Your task to perform on an android device: Open Wikipedia Image 0: 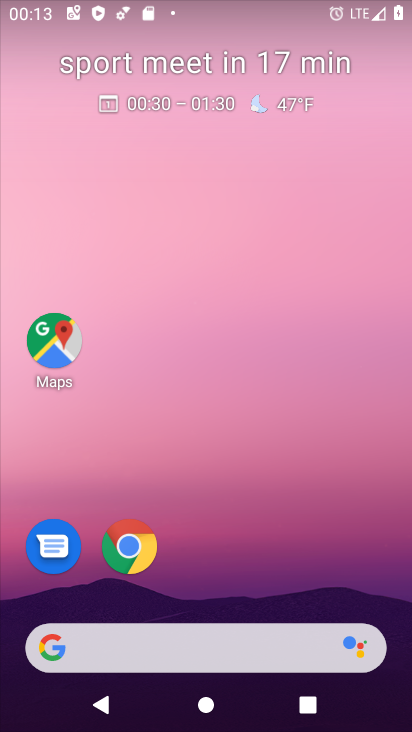
Step 0: click (125, 559)
Your task to perform on an android device: Open Wikipedia Image 1: 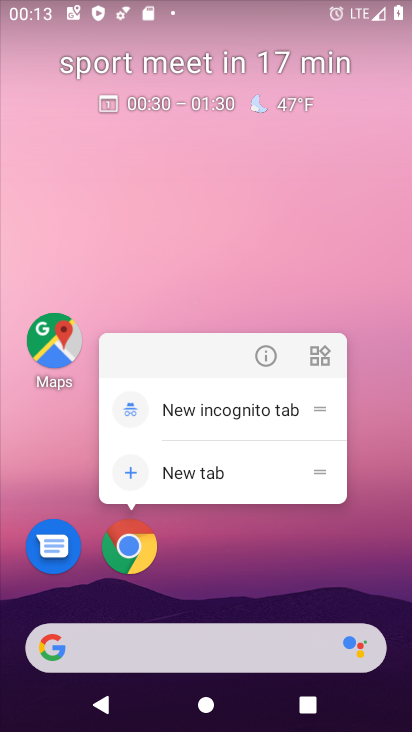
Step 1: click (206, 550)
Your task to perform on an android device: Open Wikipedia Image 2: 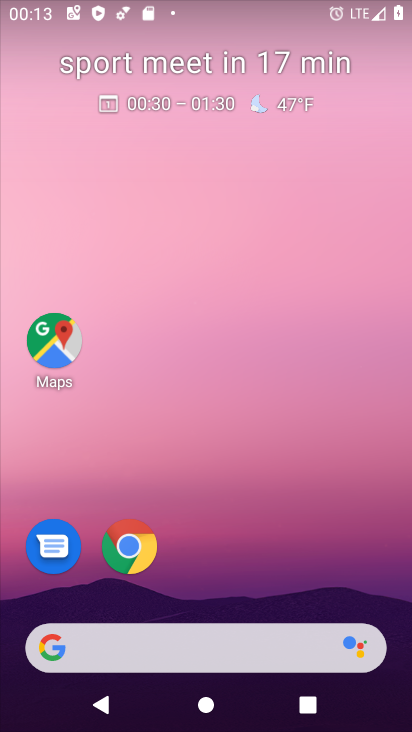
Step 2: click (109, 556)
Your task to perform on an android device: Open Wikipedia Image 3: 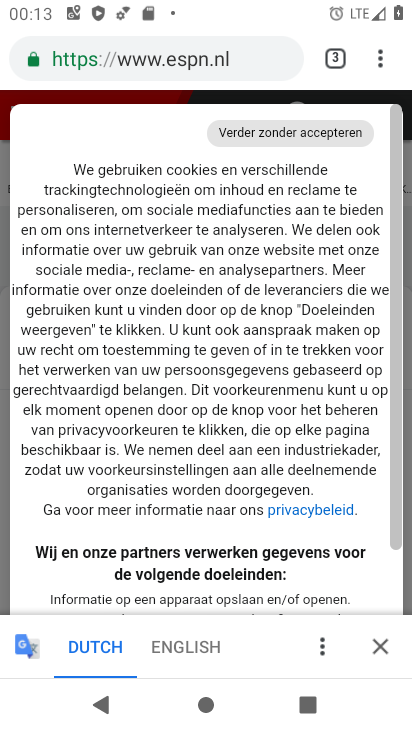
Step 3: click (384, 56)
Your task to perform on an android device: Open Wikipedia Image 4: 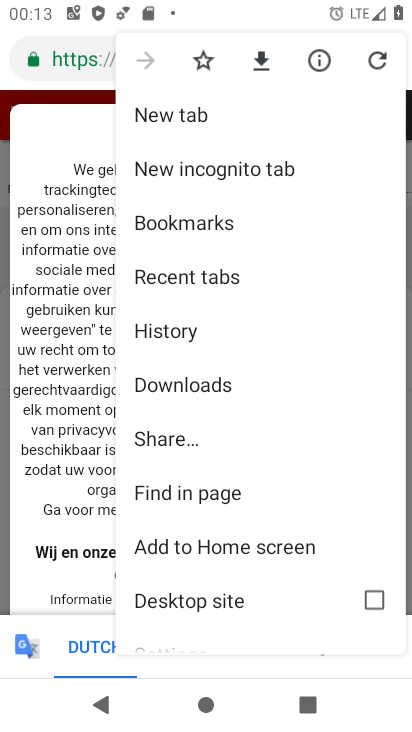
Step 4: click (91, 66)
Your task to perform on an android device: Open Wikipedia Image 5: 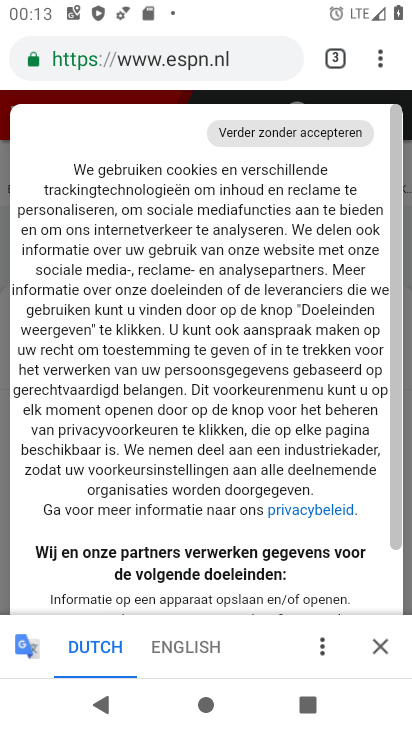
Step 5: click (271, 49)
Your task to perform on an android device: Open Wikipedia Image 6: 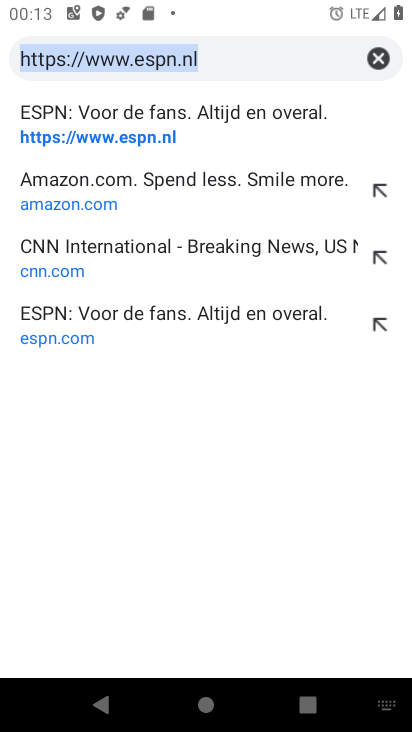
Step 6: click (386, 50)
Your task to perform on an android device: Open Wikipedia Image 7: 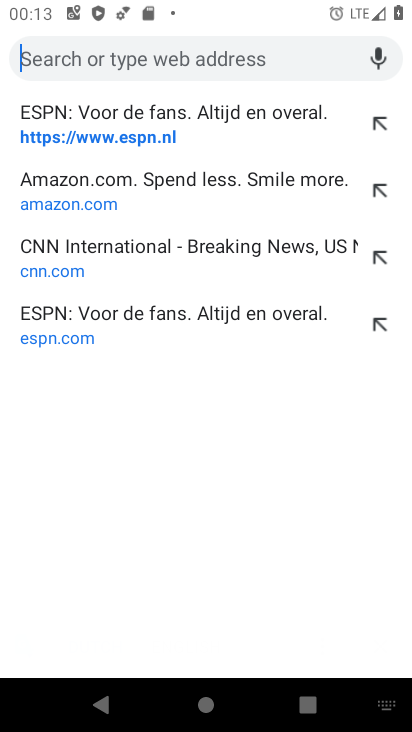
Step 7: click (164, 61)
Your task to perform on an android device: Open Wikipedia Image 8: 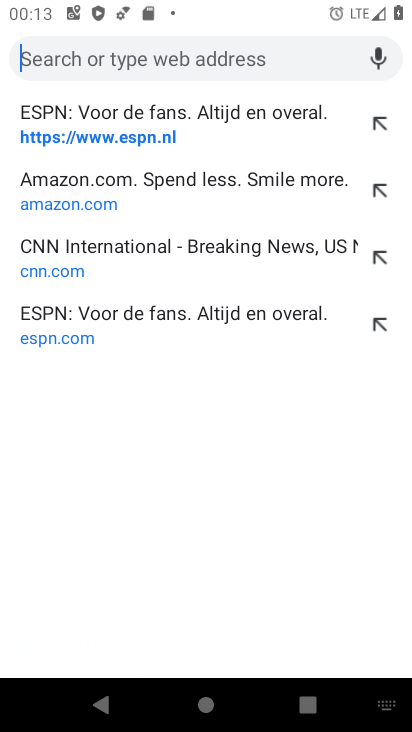
Step 8: type "wikipedia"
Your task to perform on an android device: Open Wikipedia Image 9: 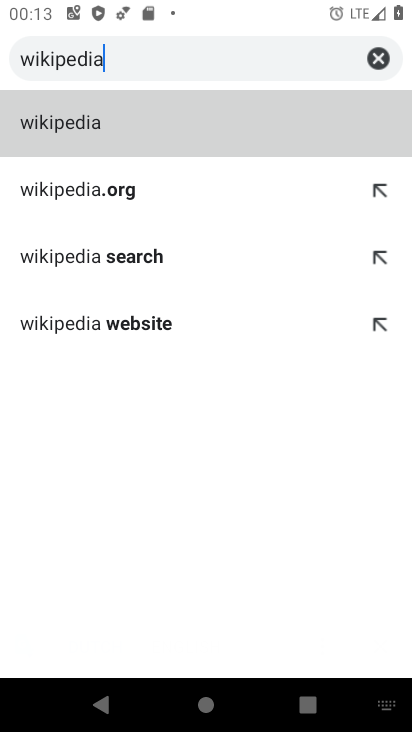
Step 9: click (84, 118)
Your task to perform on an android device: Open Wikipedia Image 10: 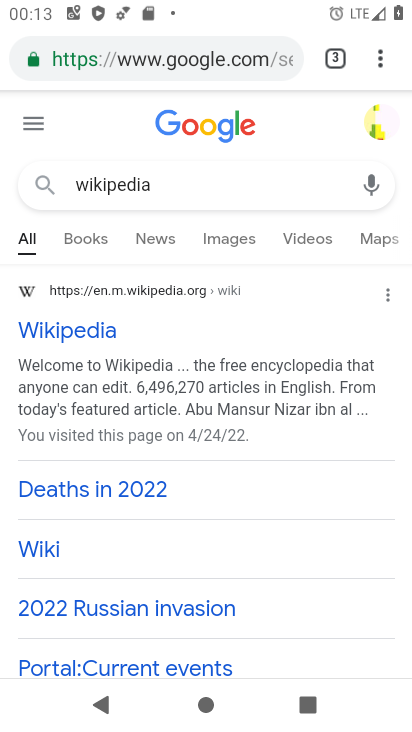
Step 10: click (89, 343)
Your task to perform on an android device: Open Wikipedia Image 11: 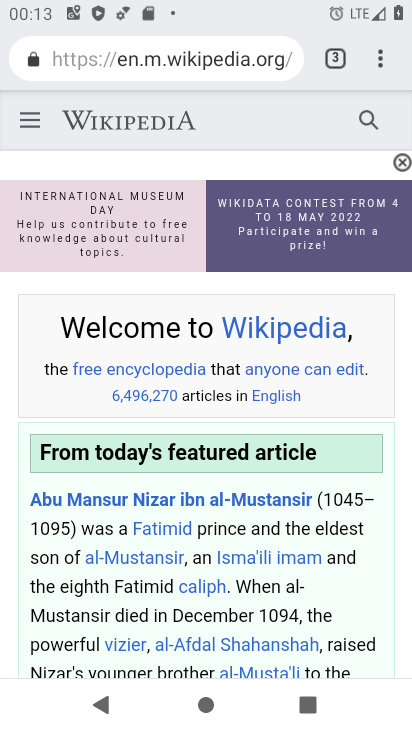
Step 11: task complete